Your task to perform on an android device: Search for a coffee table on IKEA Image 0: 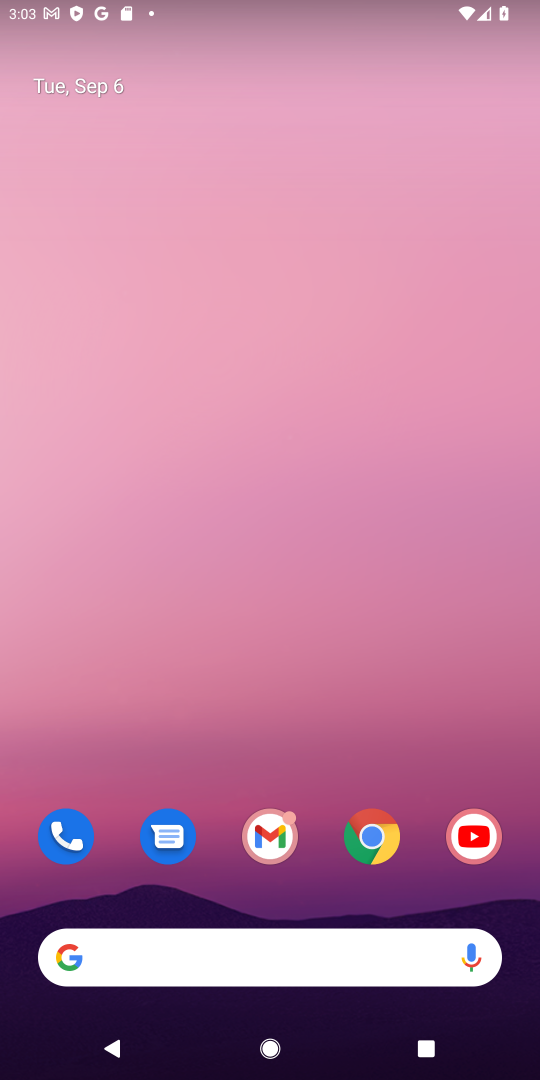
Step 0: click (294, 955)
Your task to perform on an android device: Search for a coffee table on IKEA Image 1: 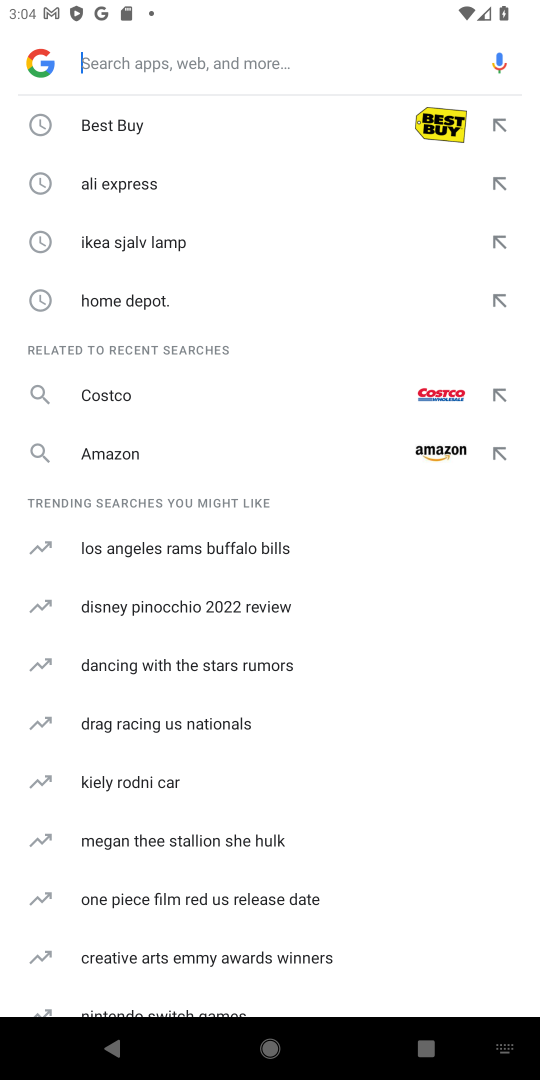
Step 1: type "ikea"
Your task to perform on an android device: Search for a coffee table on IKEA Image 2: 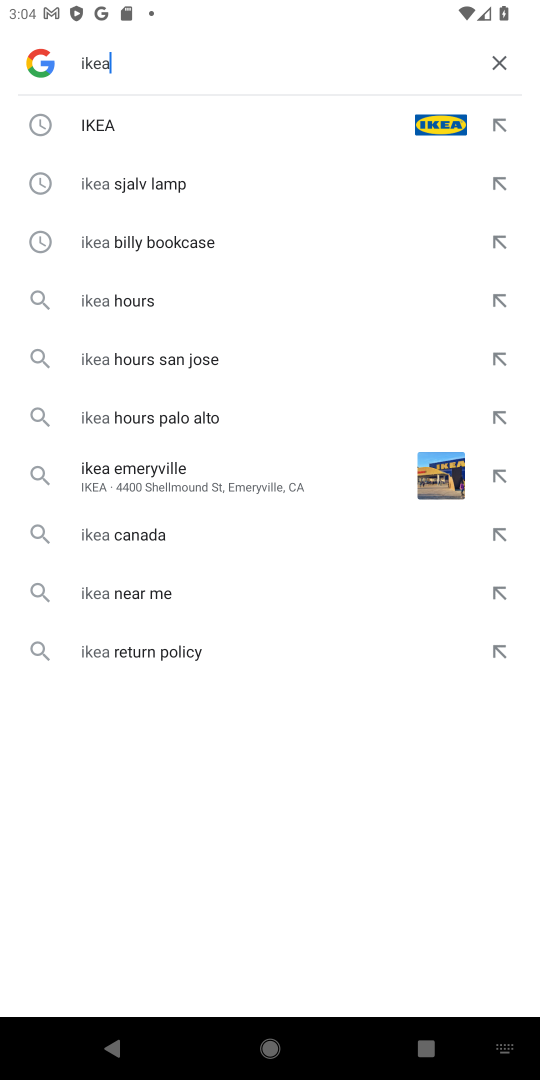
Step 2: click (109, 119)
Your task to perform on an android device: Search for a coffee table on IKEA Image 3: 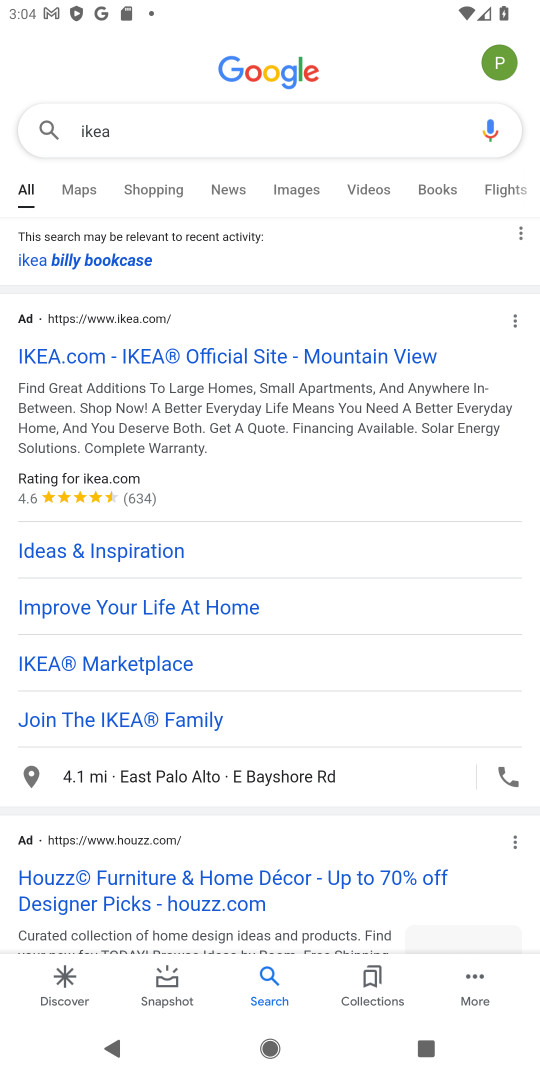
Step 3: click (87, 351)
Your task to perform on an android device: Search for a coffee table on IKEA Image 4: 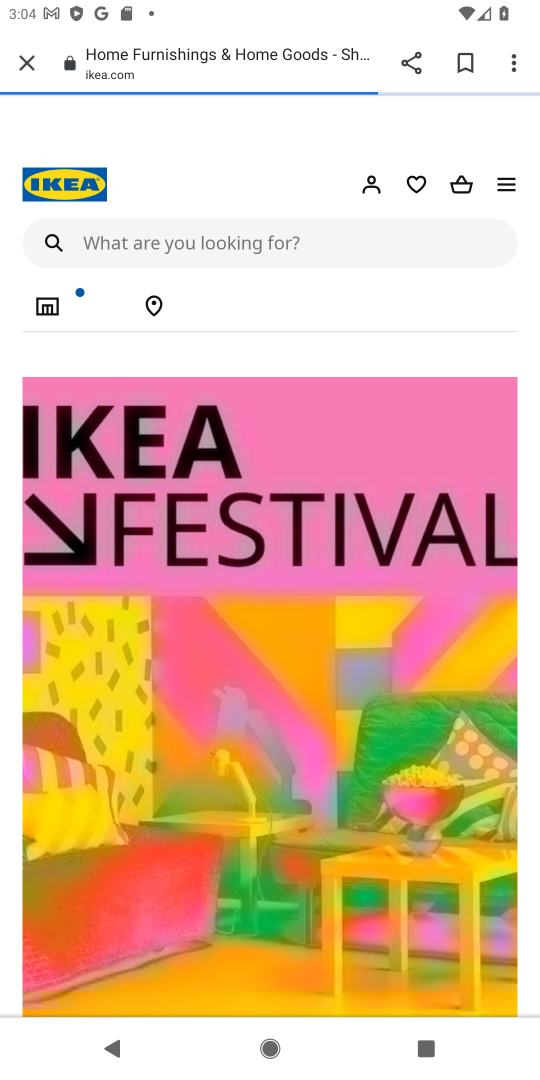
Step 4: click (254, 236)
Your task to perform on an android device: Search for a coffee table on IKEA Image 5: 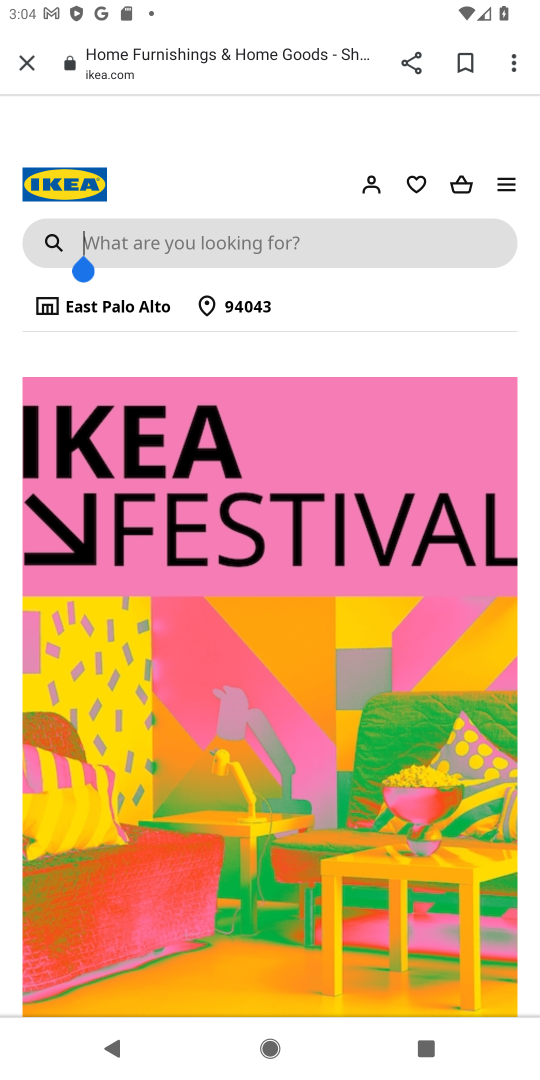
Step 5: type "coffee table"
Your task to perform on an android device: Search for a coffee table on IKEA Image 6: 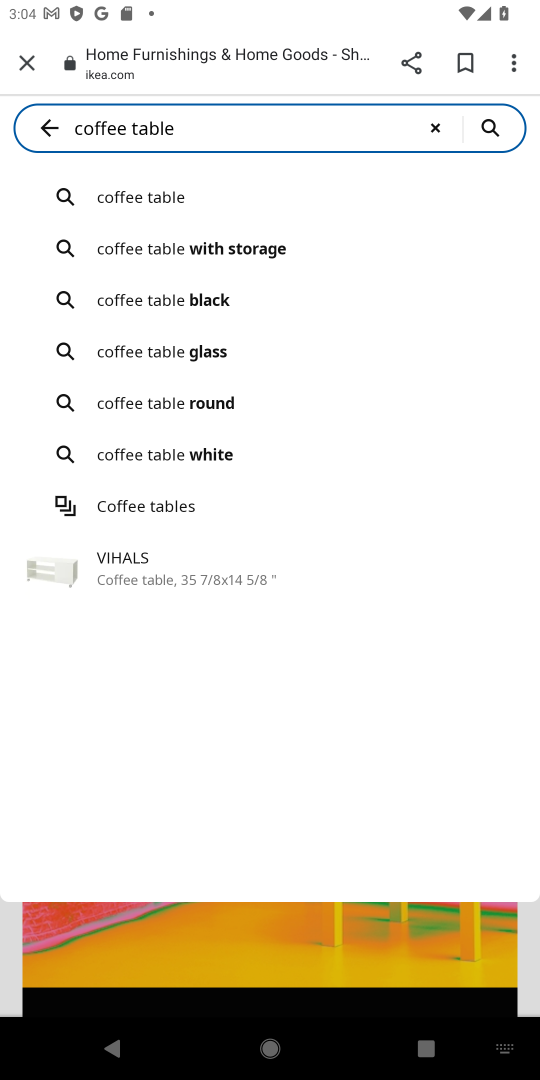
Step 6: click (487, 124)
Your task to perform on an android device: Search for a coffee table on IKEA Image 7: 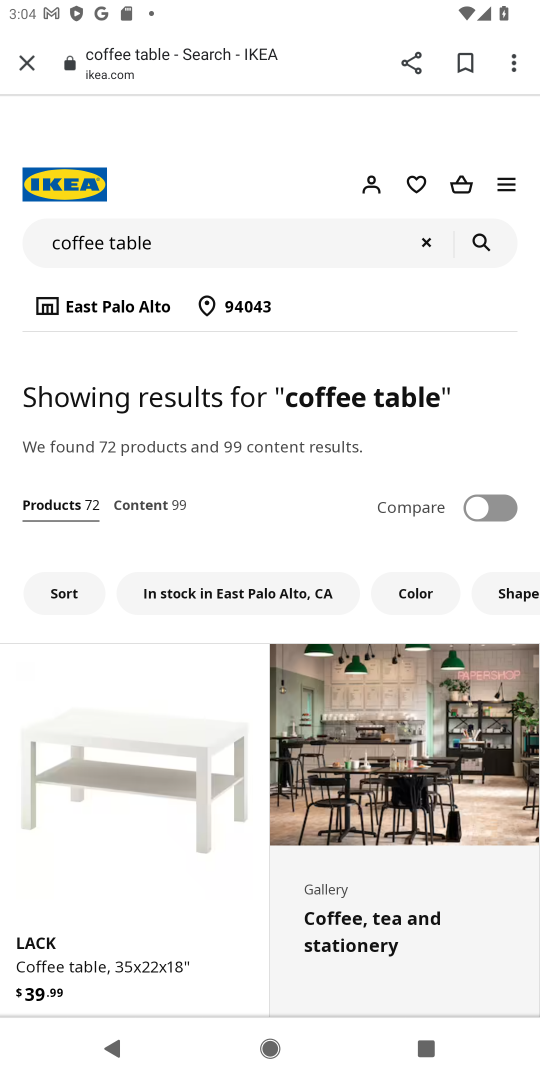
Step 7: task complete